Your task to perform on an android device: turn on bluetooth scan Image 0: 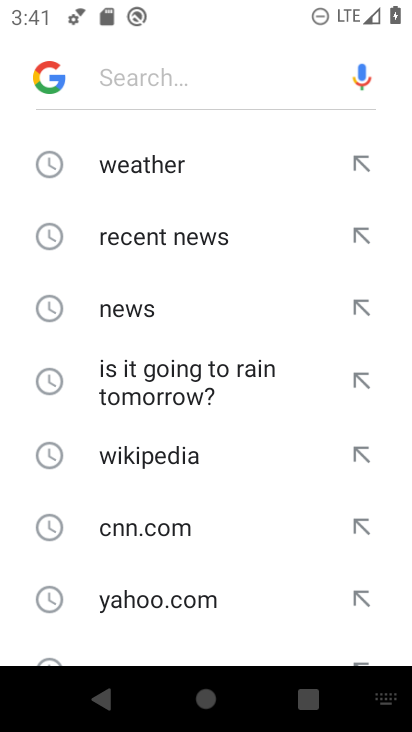
Step 0: press home button
Your task to perform on an android device: turn on bluetooth scan Image 1: 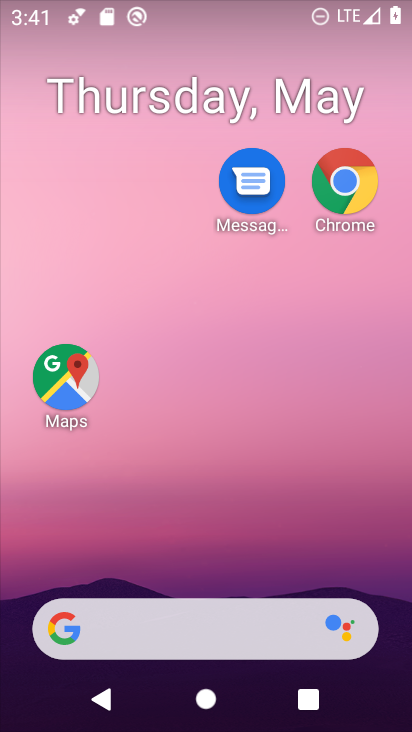
Step 1: drag from (226, 599) to (365, 18)
Your task to perform on an android device: turn on bluetooth scan Image 2: 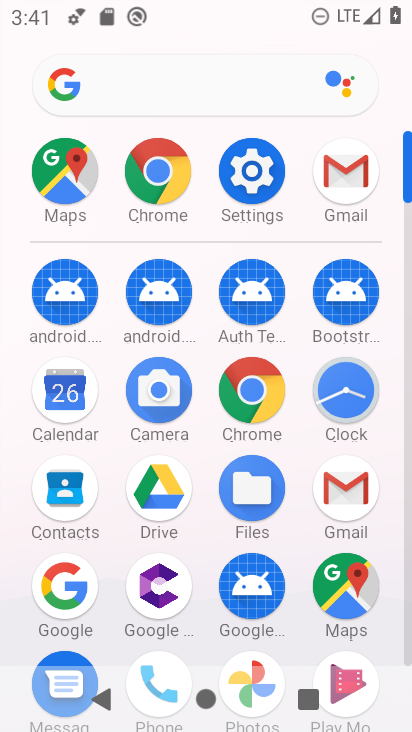
Step 2: click (262, 185)
Your task to perform on an android device: turn on bluetooth scan Image 3: 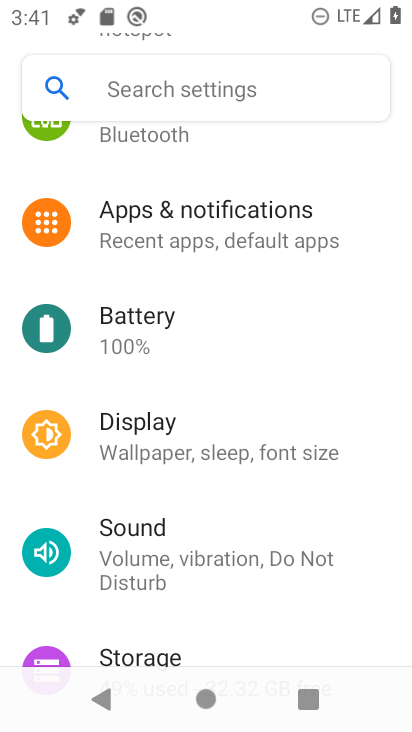
Step 3: drag from (223, 348) to (228, 79)
Your task to perform on an android device: turn on bluetooth scan Image 4: 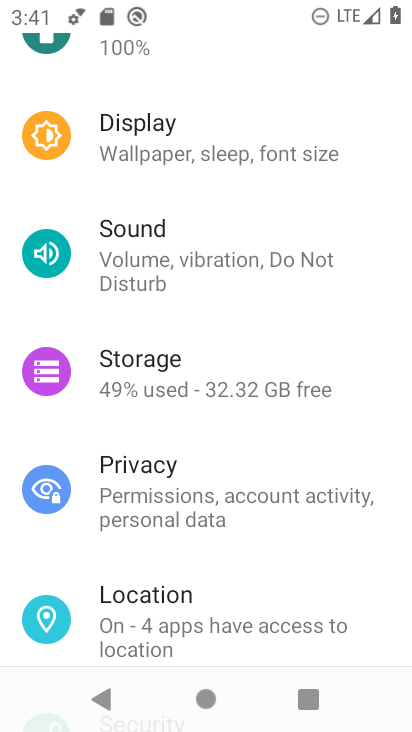
Step 4: click (204, 620)
Your task to perform on an android device: turn on bluetooth scan Image 5: 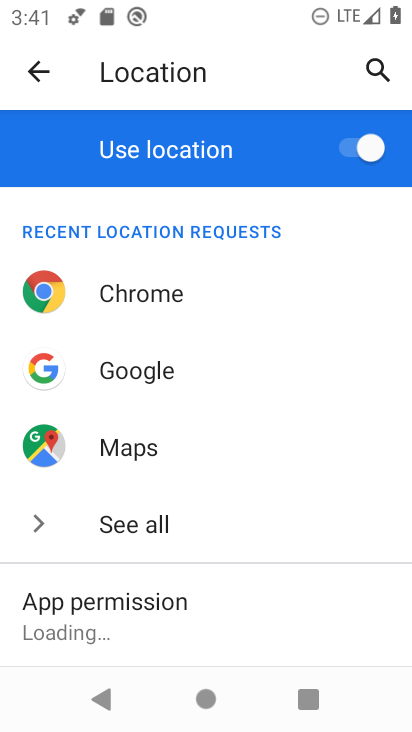
Step 5: drag from (286, 591) to (284, 16)
Your task to perform on an android device: turn on bluetooth scan Image 6: 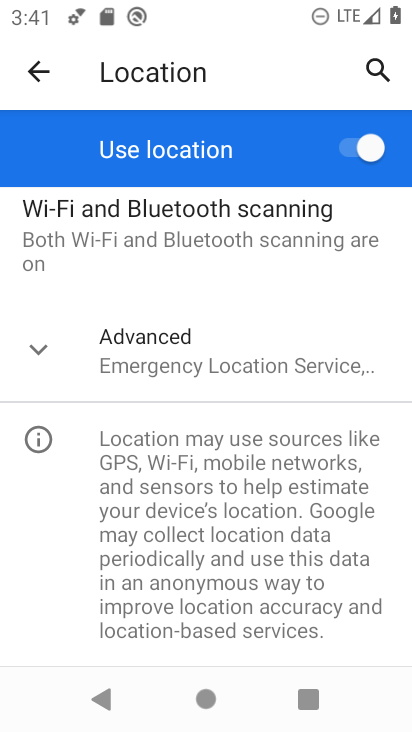
Step 6: click (230, 237)
Your task to perform on an android device: turn on bluetooth scan Image 7: 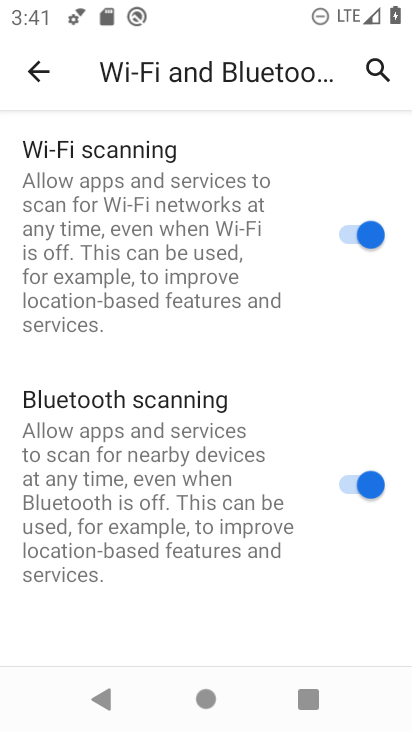
Step 7: task complete